Your task to perform on an android device: check storage Image 0: 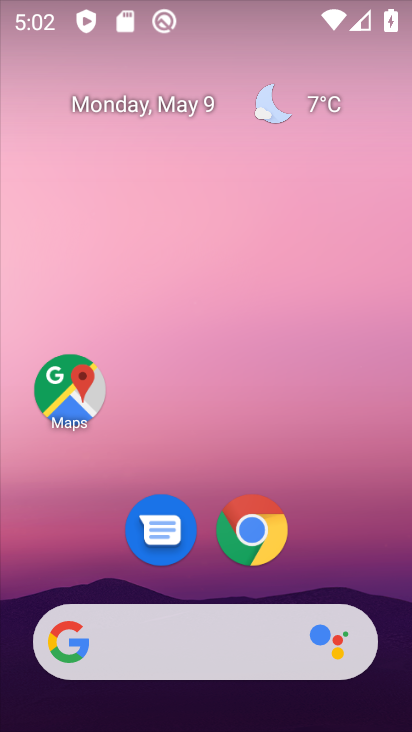
Step 0: drag from (323, 560) to (311, 36)
Your task to perform on an android device: check storage Image 1: 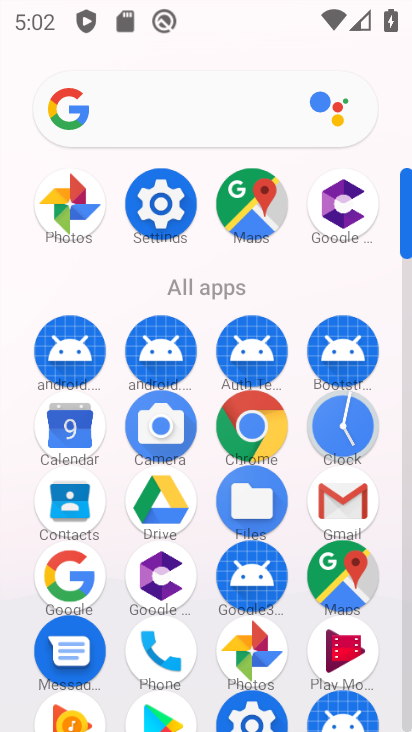
Step 1: click (155, 212)
Your task to perform on an android device: check storage Image 2: 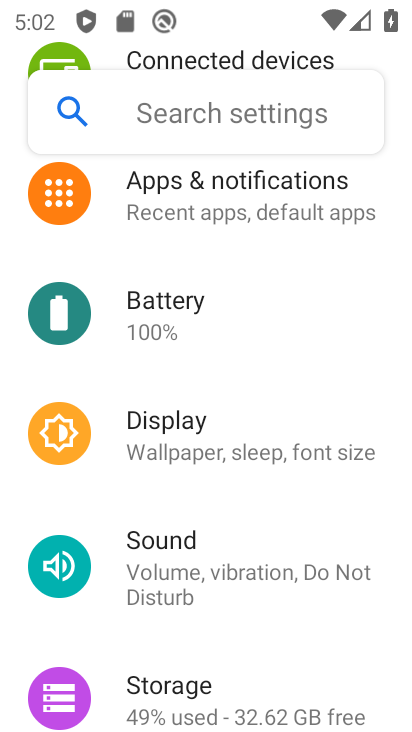
Step 2: click (228, 710)
Your task to perform on an android device: check storage Image 3: 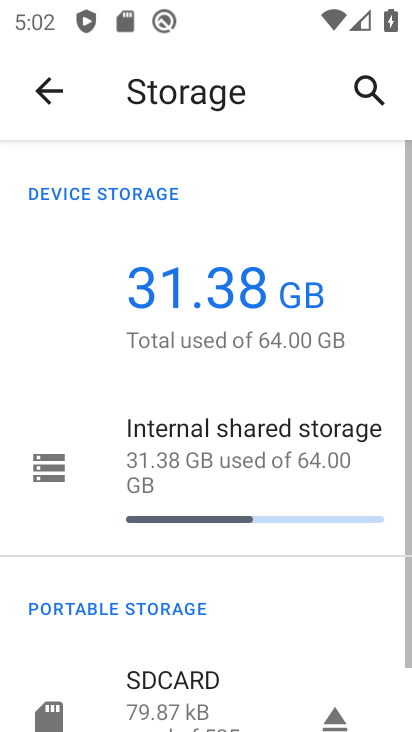
Step 3: task complete